Your task to perform on an android device: see sites visited before in the chrome app Image 0: 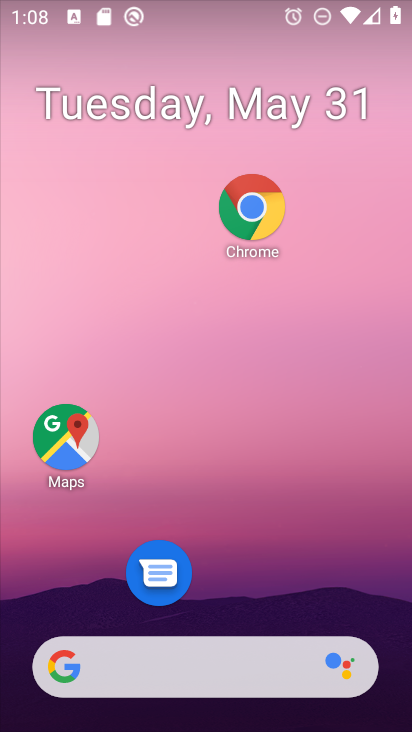
Step 0: drag from (244, 612) to (282, 217)
Your task to perform on an android device: see sites visited before in the chrome app Image 1: 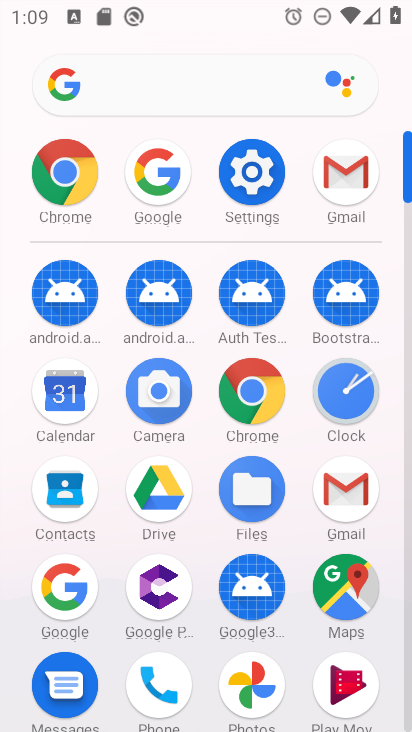
Step 1: click (255, 419)
Your task to perform on an android device: see sites visited before in the chrome app Image 2: 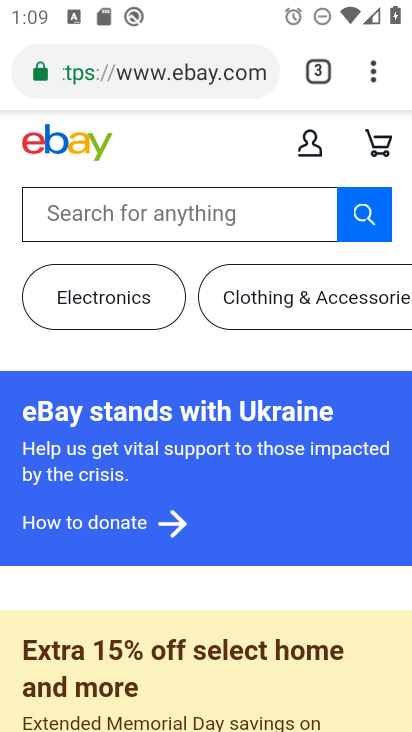
Step 2: click (372, 86)
Your task to perform on an android device: see sites visited before in the chrome app Image 3: 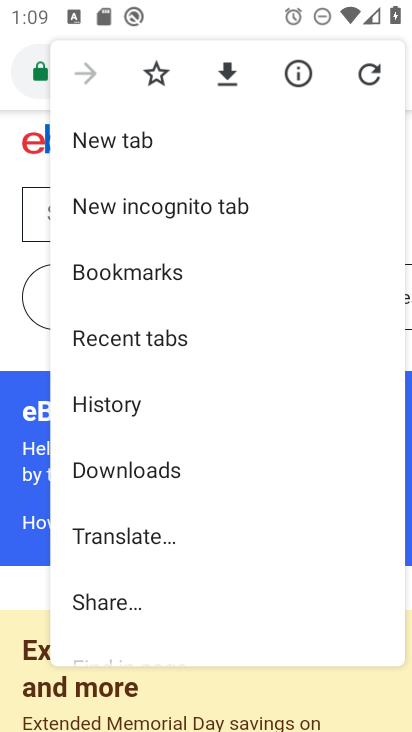
Step 3: click (137, 407)
Your task to perform on an android device: see sites visited before in the chrome app Image 4: 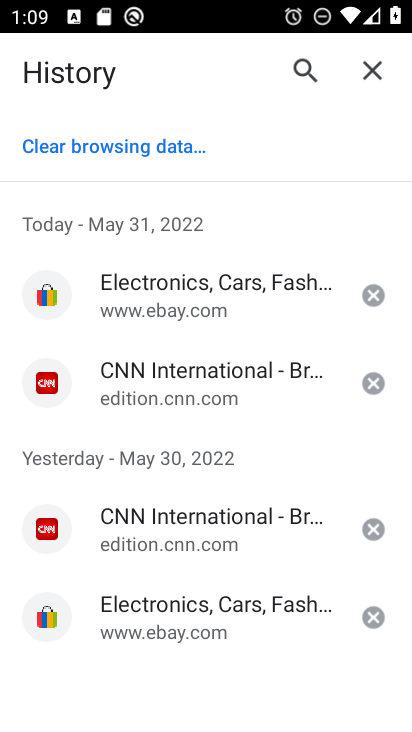
Step 4: task complete